Your task to perform on an android device: Go to Google maps Image 0: 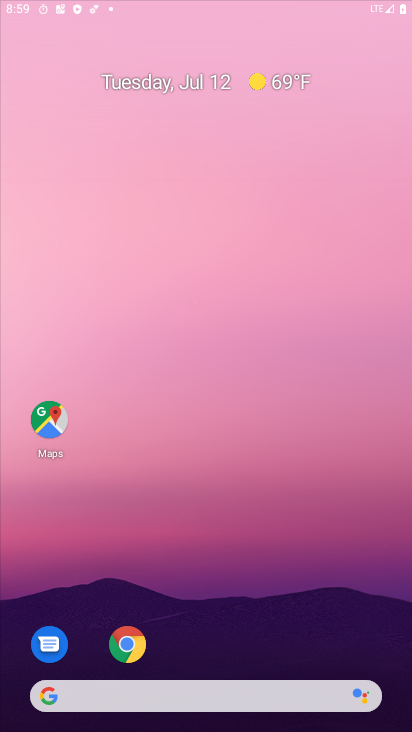
Step 0: press home button
Your task to perform on an android device: Go to Google maps Image 1: 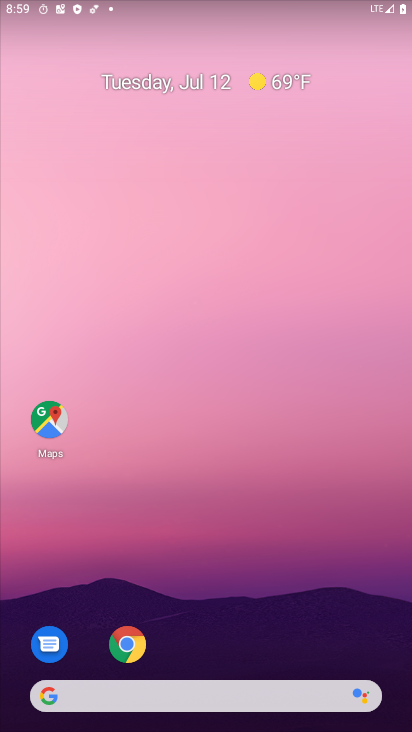
Step 1: click (51, 416)
Your task to perform on an android device: Go to Google maps Image 2: 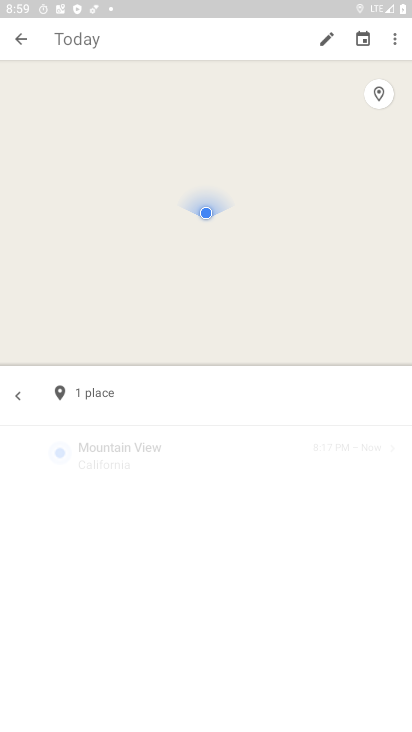
Step 2: click (17, 35)
Your task to perform on an android device: Go to Google maps Image 3: 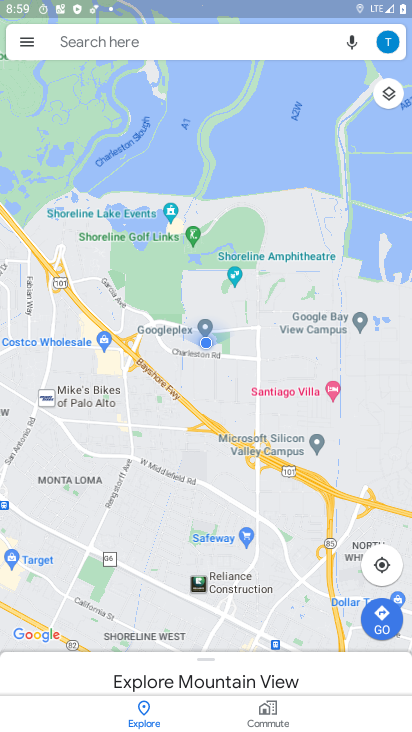
Step 3: task complete